Your task to perform on an android device: Go to internet settings Image 0: 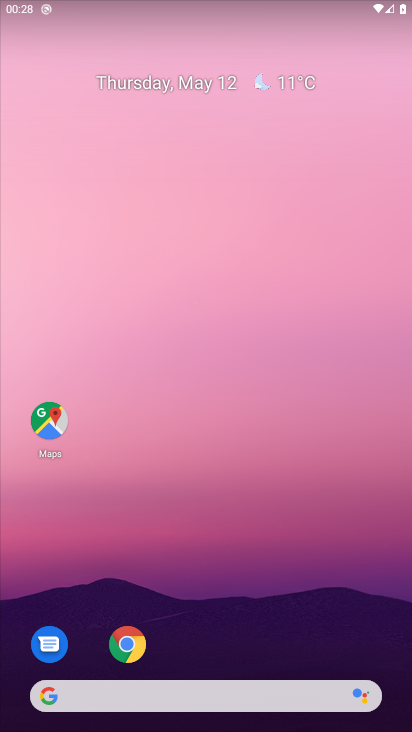
Step 0: drag from (198, 662) to (224, 218)
Your task to perform on an android device: Go to internet settings Image 1: 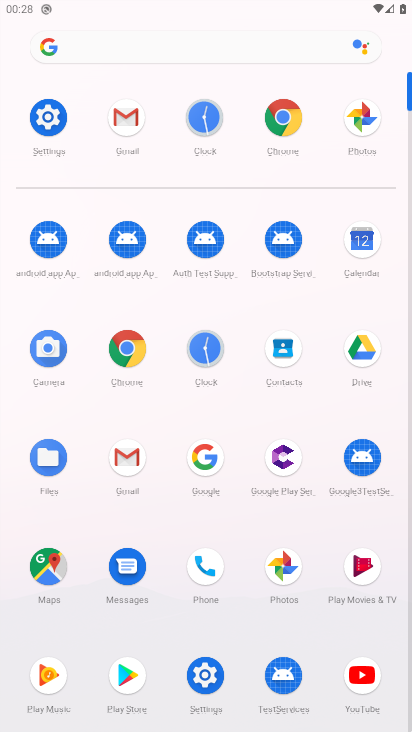
Step 1: click (49, 112)
Your task to perform on an android device: Go to internet settings Image 2: 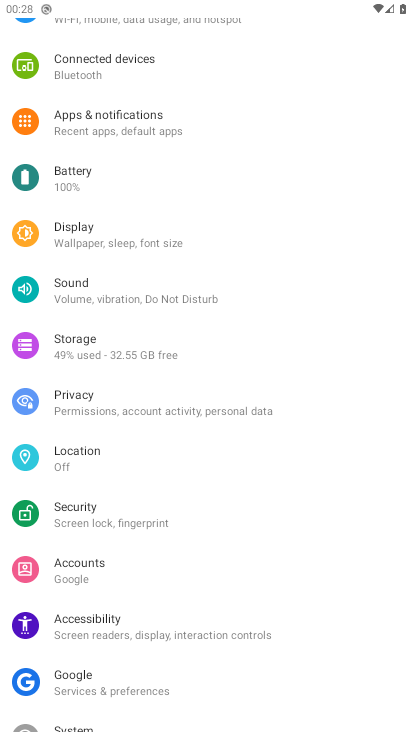
Step 2: drag from (110, 94) to (130, 666)
Your task to perform on an android device: Go to internet settings Image 3: 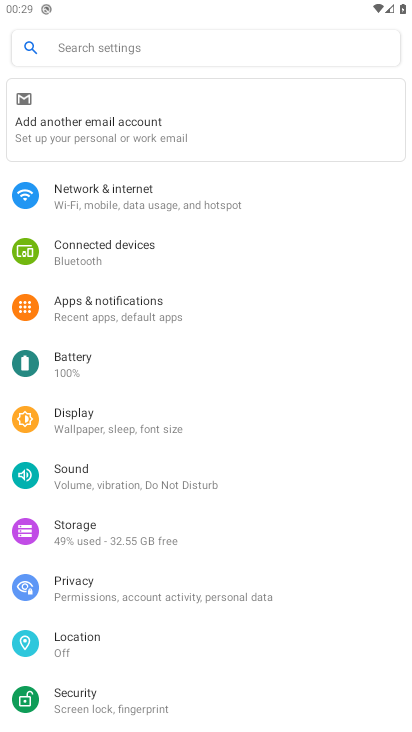
Step 3: click (116, 186)
Your task to perform on an android device: Go to internet settings Image 4: 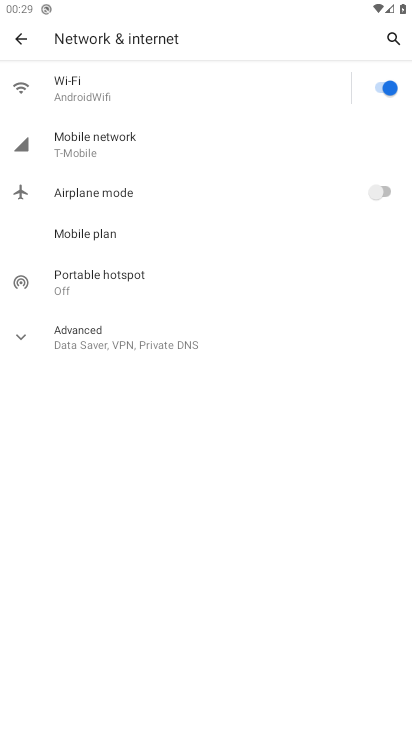
Step 4: click (17, 332)
Your task to perform on an android device: Go to internet settings Image 5: 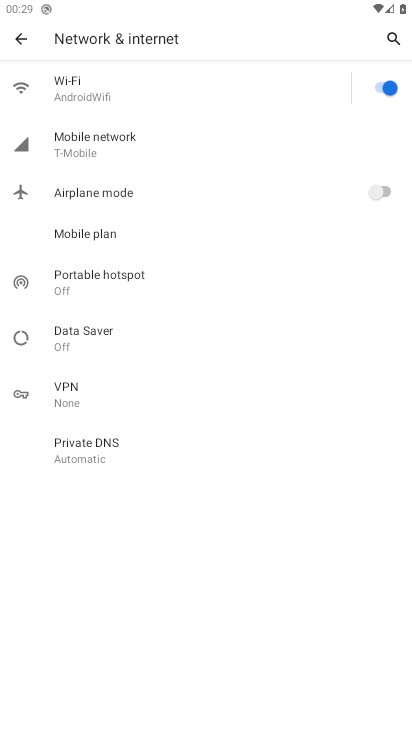
Step 5: task complete